Your task to perform on an android device: open app "Move to iOS" Image 0: 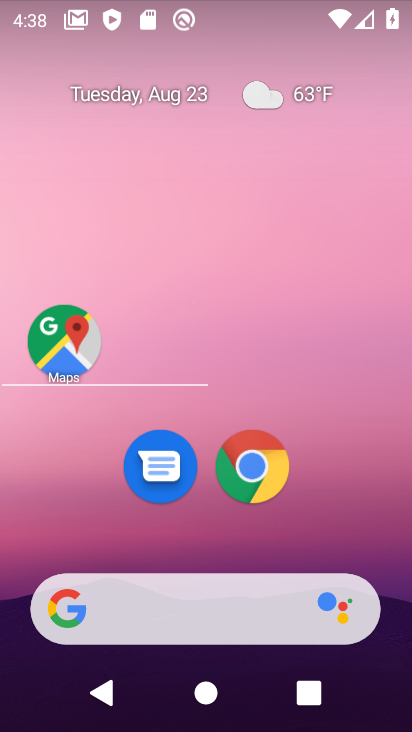
Step 0: click (393, 350)
Your task to perform on an android device: open app "Move to iOS" Image 1: 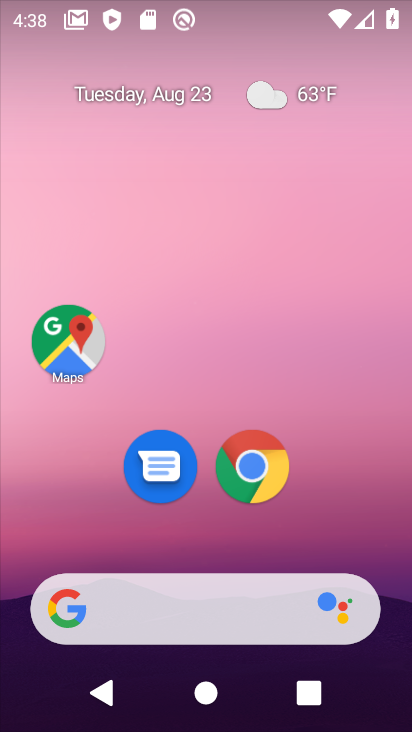
Step 1: drag from (219, 551) to (235, 0)
Your task to perform on an android device: open app "Move to iOS" Image 2: 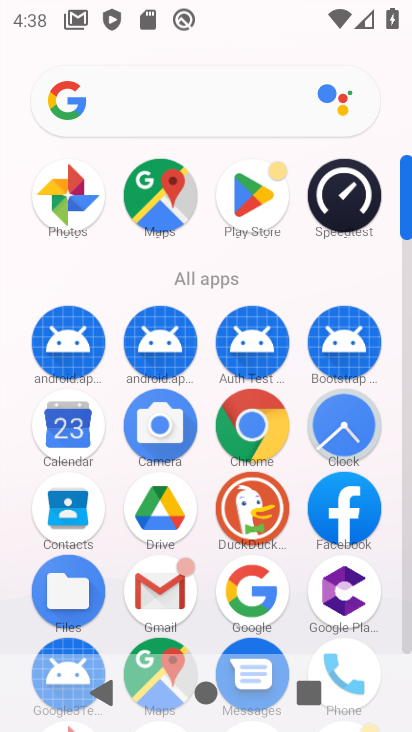
Step 2: click (262, 193)
Your task to perform on an android device: open app "Move to iOS" Image 3: 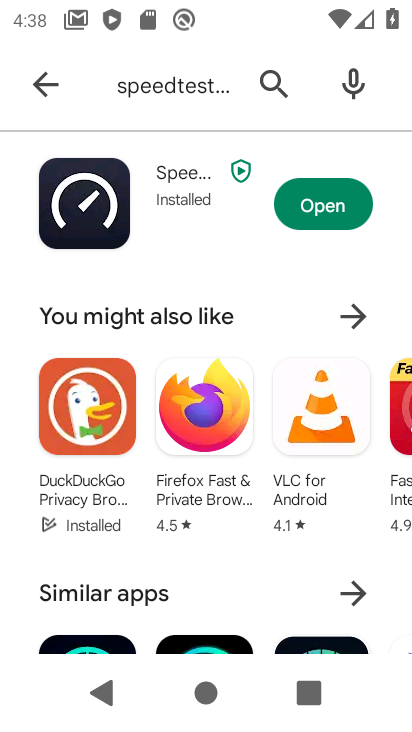
Step 3: click (198, 99)
Your task to perform on an android device: open app "Move to iOS" Image 4: 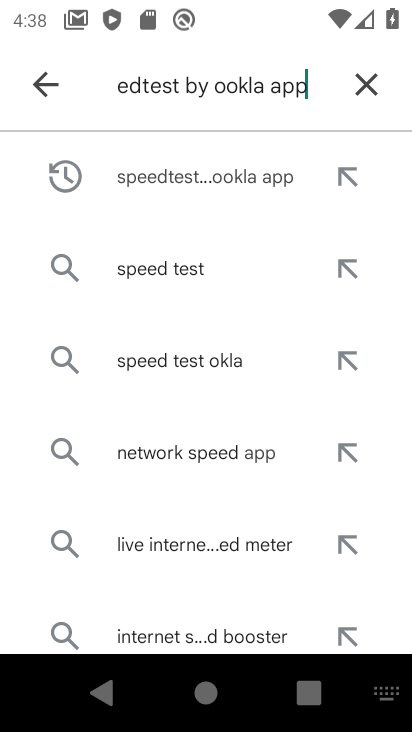
Step 4: click (358, 77)
Your task to perform on an android device: open app "Move to iOS" Image 5: 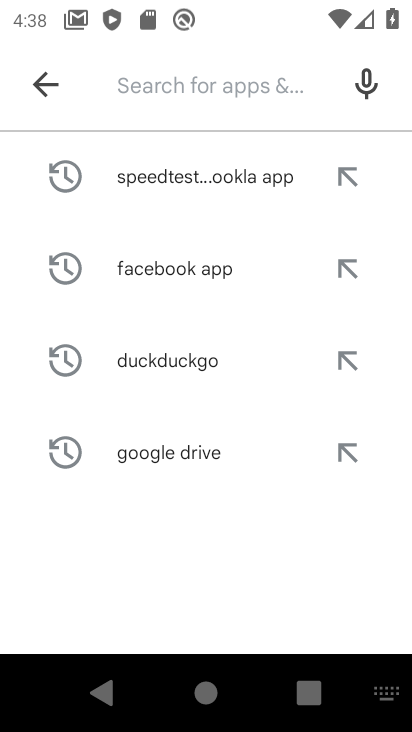
Step 5: type "MOve to IOS"
Your task to perform on an android device: open app "Move to iOS" Image 6: 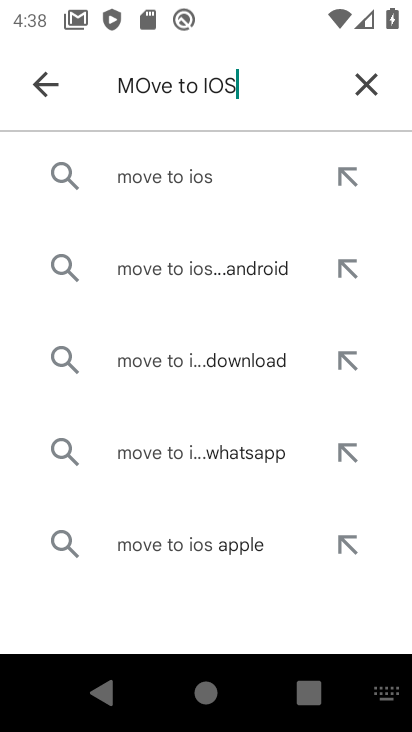
Step 6: click (193, 182)
Your task to perform on an android device: open app "Move to iOS" Image 7: 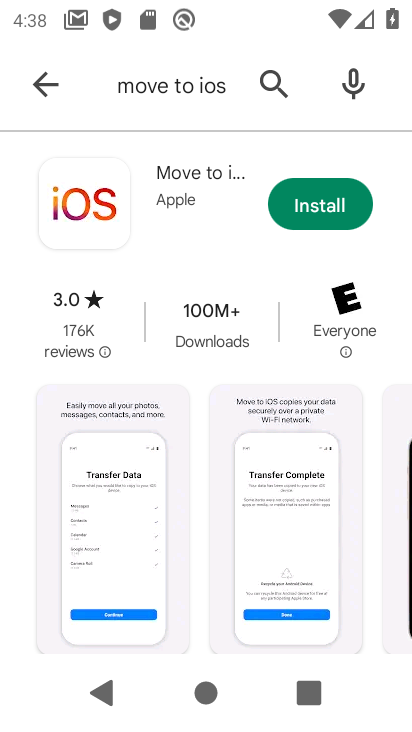
Step 7: task complete